Your task to perform on an android device: Show me popular videos on Youtube Image 0: 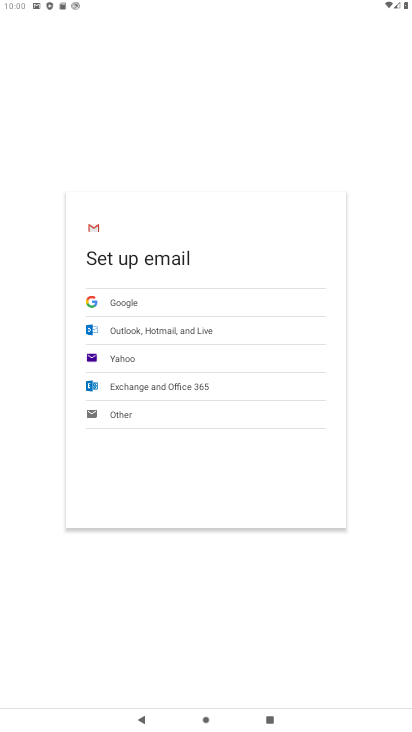
Step 0: press home button
Your task to perform on an android device: Show me popular videos on Youtube Image 1: 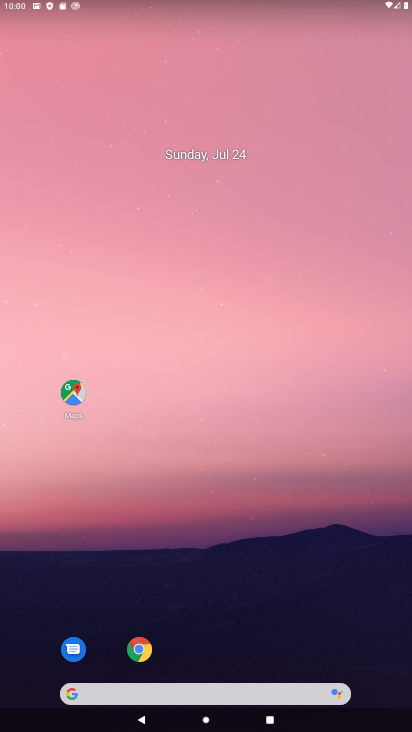
Step 1: drag from (241, 653) to (329, 19)
Your task to perform on an android device: Show me popular videos on Youtube Image 2: 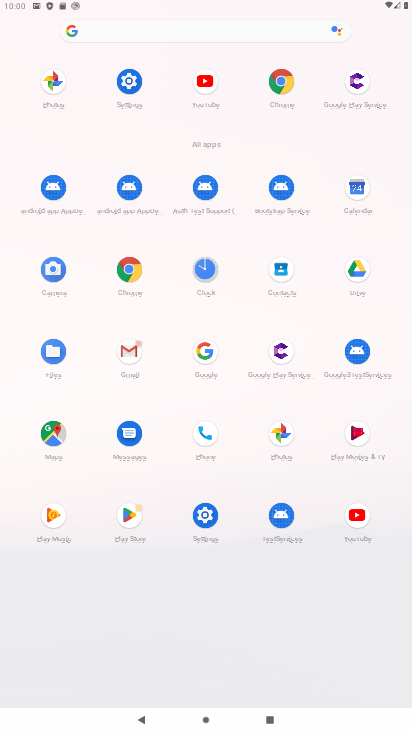
Step 2: click (366, 533)
Your task to perform on an android device: Show me popular videos on Youtube Image 3: 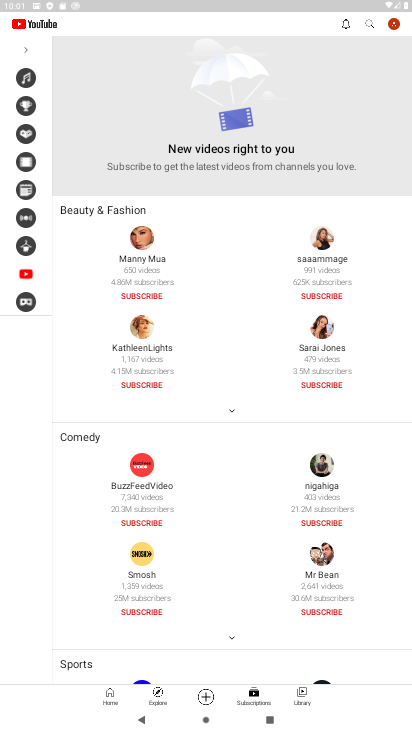
Step 3: click (372, 24)
Your task to perform on an android device: Show me popular videos on Youtube Image 4: 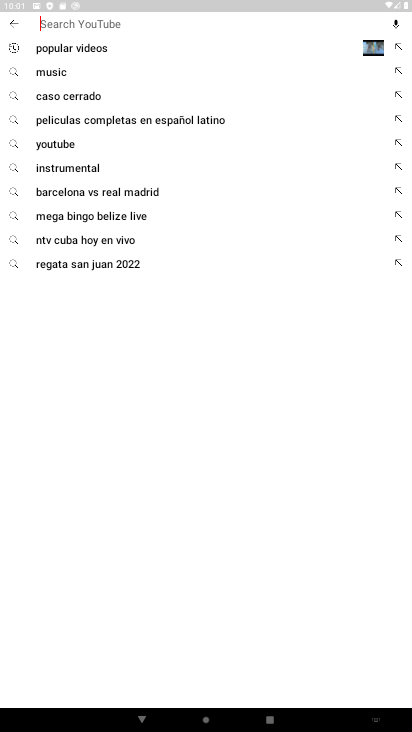
Step 4: click (88, 43)
Your task to perform on an android device: Show me popular videos on Youtube Image 5: 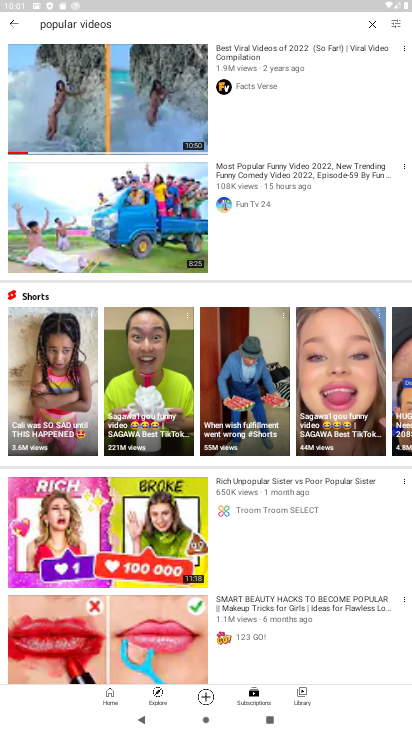
Step 5: task complete